Your task to perform on an android device: Open maps Image 0: 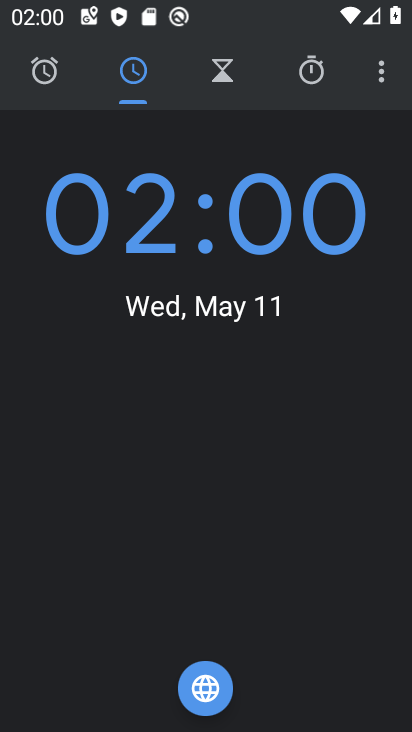
Step 0: press back button
Your task to perform on an android device: Open maps Image 1: 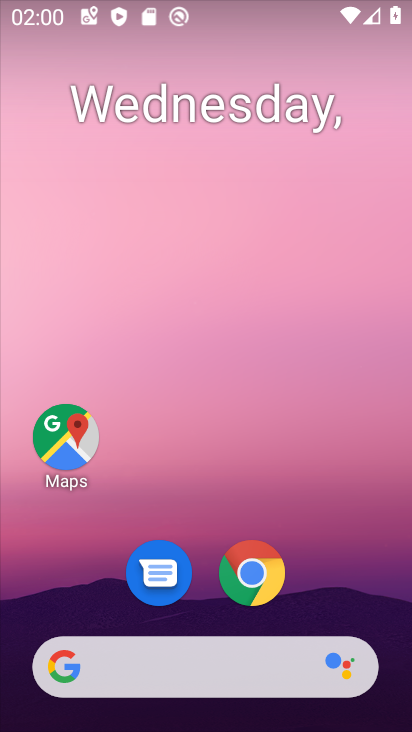
Step 1: click (65, 439)
Your task to perform on an android device: Open maps Image 2: 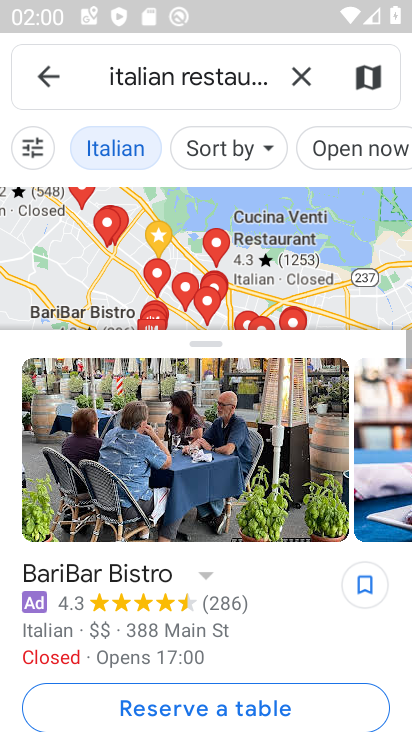
Step 2: click (296, 73)
Your task to perform on an android device: Open maps Image 3: 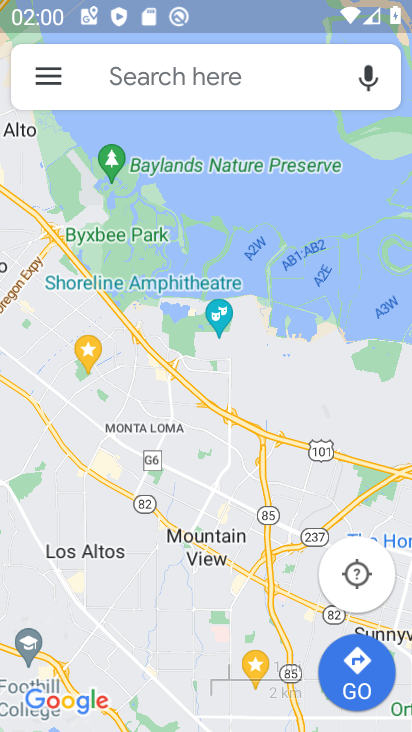
Step 3: task complete